Your task to perform on an android device: turn on javascript in the chrome app Image 0: 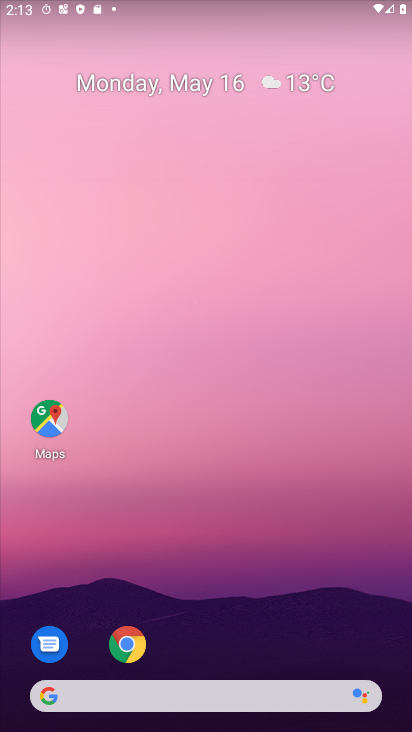
Step 0: click (133, 650)
Your task to perform on an android device: turn on javascript in the chrome app Image 1: 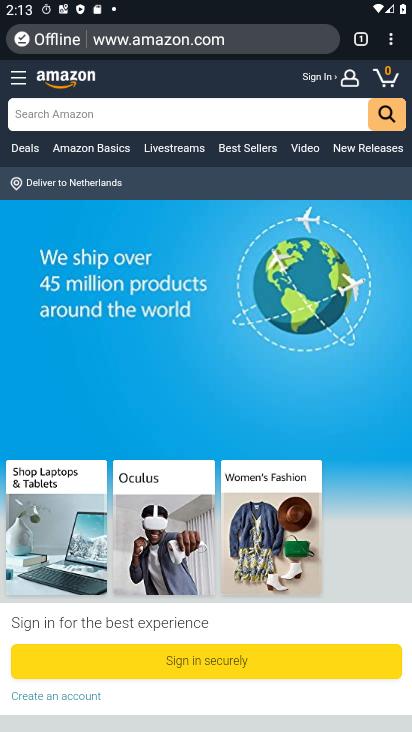
Step 1: click (390, 42)
Your task to perform on an android device: turn on javascript in the chrome app Image 2: 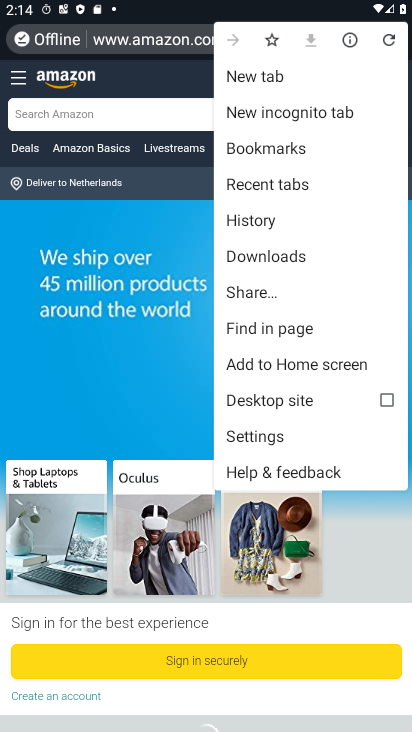
Step 2: click (271, 436)
Your task to perform on an android device: turn on javascript in the chrome app Image 3: 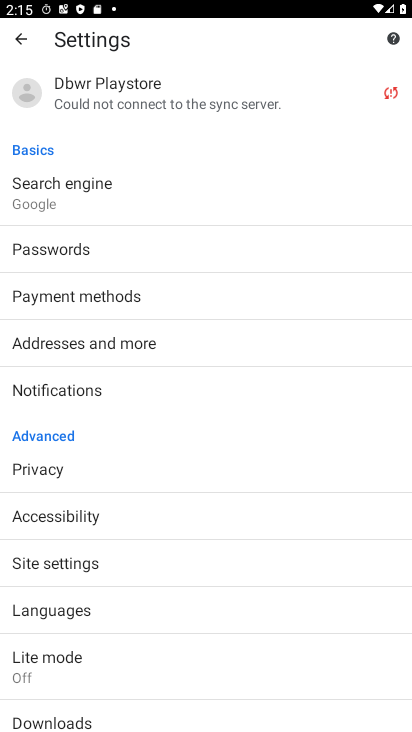
Step 3: click (87, 565)
Your task to perform on an android device: turn on javascript in the chrome app Image 4: 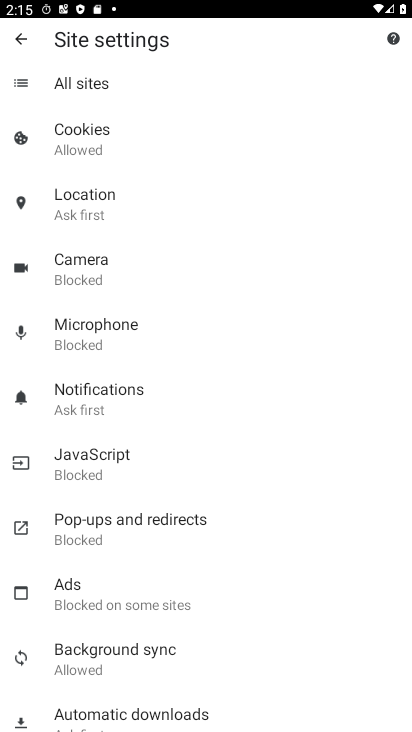
Step 4: click (90, 461)
Your task to perform on an android device: turn on javascript in the chrome app Image 5: 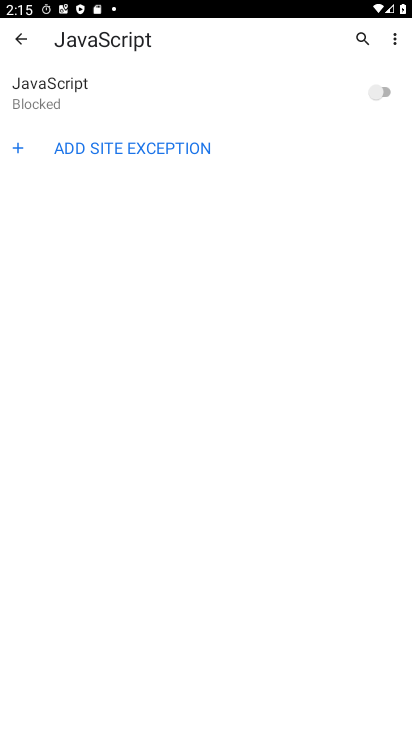
Step 5: click (350, 83)
Your task to perform on an android device: turn on javascript in the chrome app Image 6: 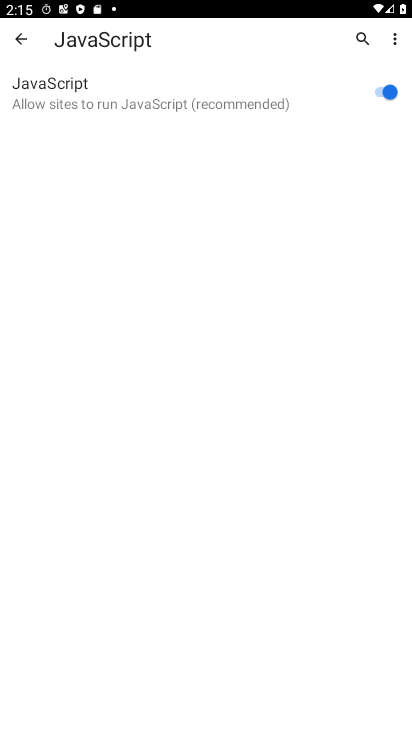
Step 6: task complete